Your task to perform on an android device: Is it going to rain today? Image 0: 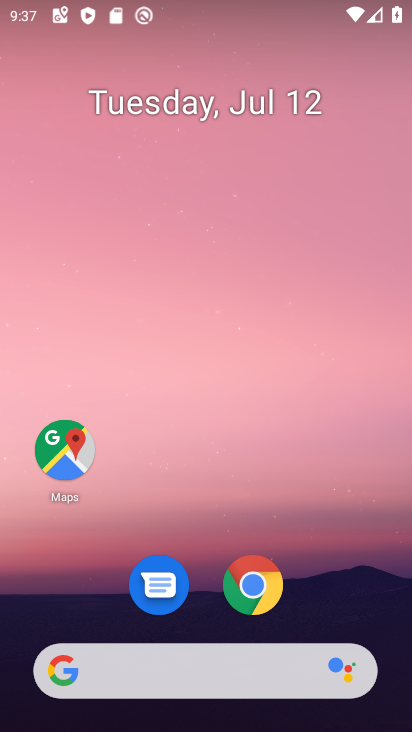
Step 0: click (202, 664)
Your task to perform on an android device: Is it going to rain today? Image 1: 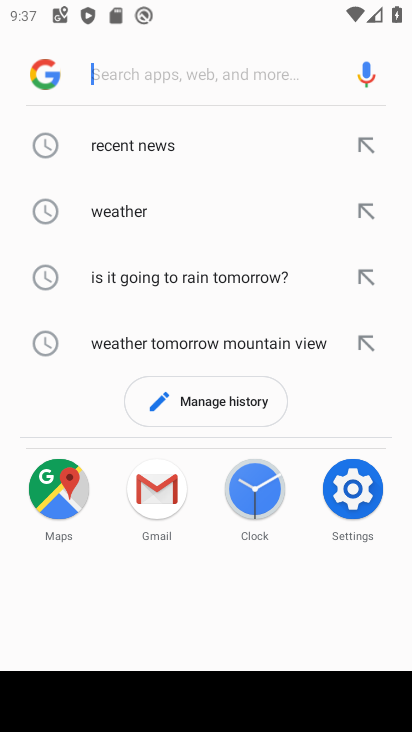
Step 1: type "Is it going to rain today"
Your task to perform on an android device: Is it going to rain today? Image 2: 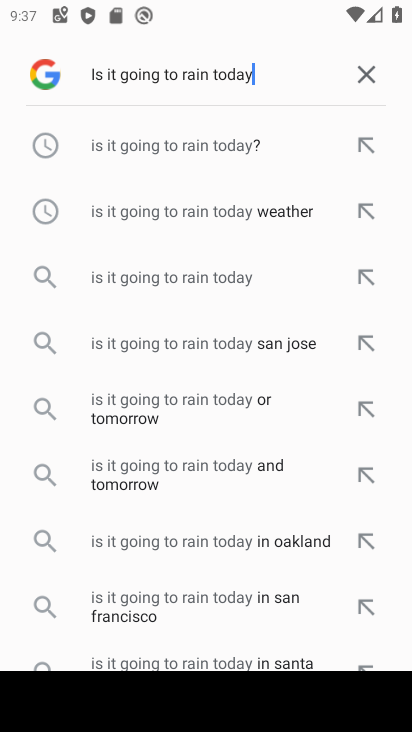
Step 2: click (206, 146)
Your task to perform on an android device: Is it going to rain today? Image 3: 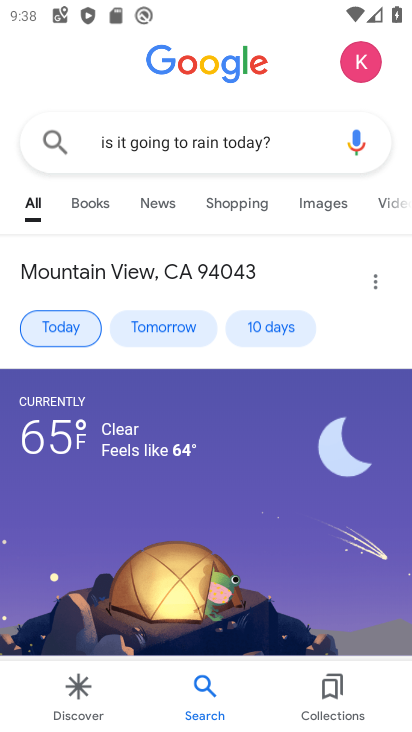
Step 3: task complete